Your task to perform on an android device: Search for "acer nitro" on costco.com, select the first entry, and add it to the cart. Image 0: 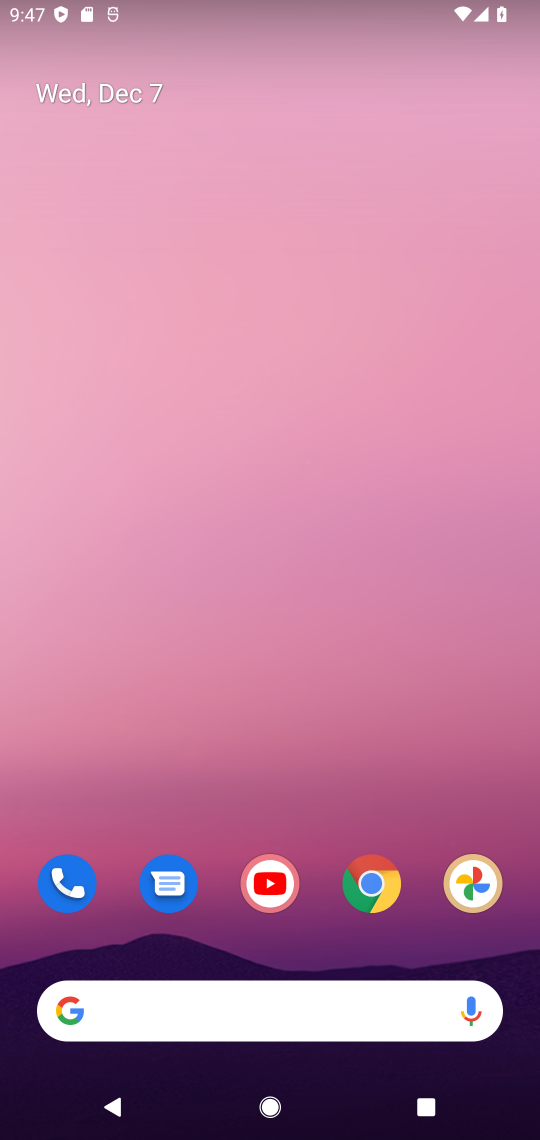
Step 0: drag from (299, 1035) to (233, 494)
Your task to perform on an android device: Search for "acer nitro" on costco.com, select the first entry, and add it to the cart. Image 1: 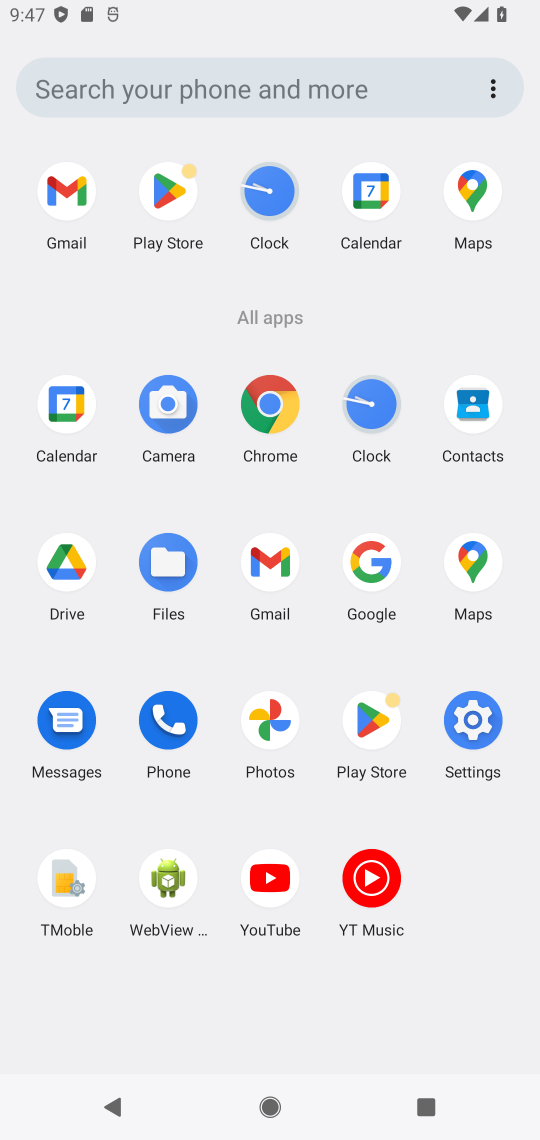
Step 1: click (363, 565)
Your task to perform on an android device: Search for "acer nitro" on costco.com, select the first entry, and add it to the cart. Image 2: 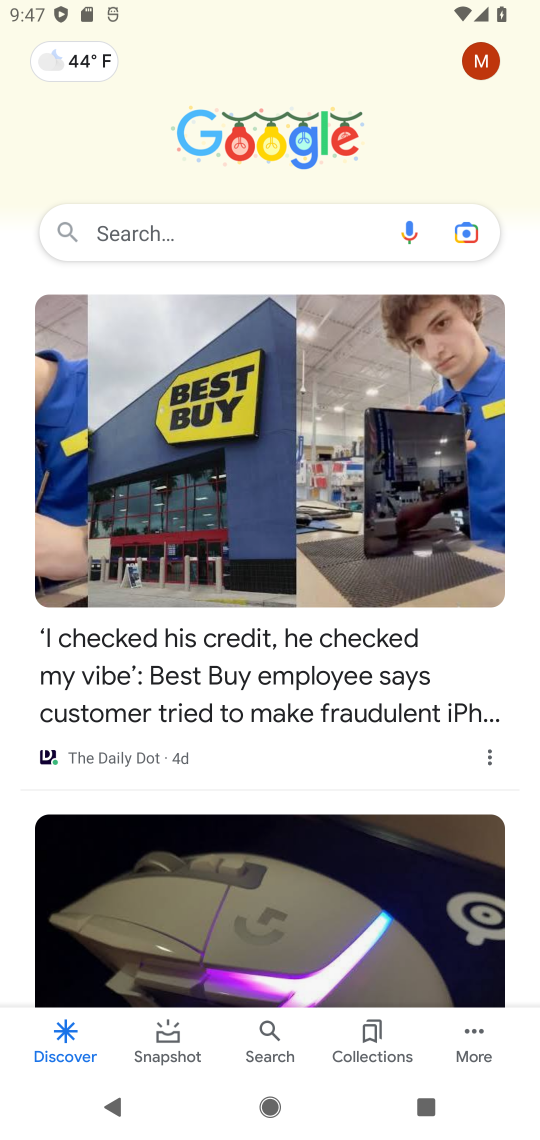
Step 2: click (161, 242)
Your task to perform on an android device: Search for "acer nitro" on costco.com, select the first entry, and add it to the cart. Image 3: 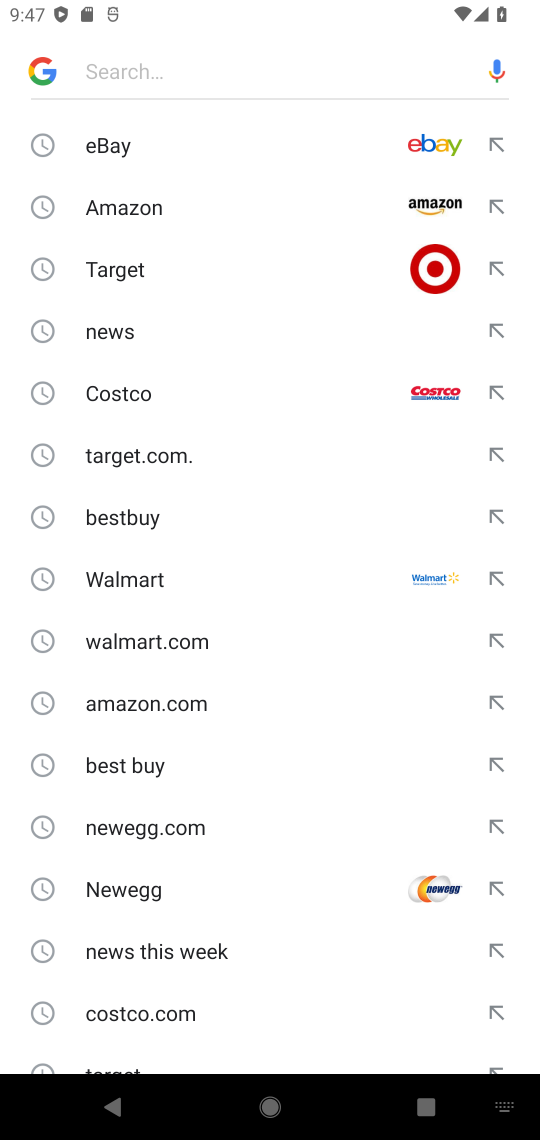
Step 3: click (137, 399)
Your task to perform on an android device: Search for "acer nitro" on costco.com, select the first entry, and add it to the cart. Image 4: 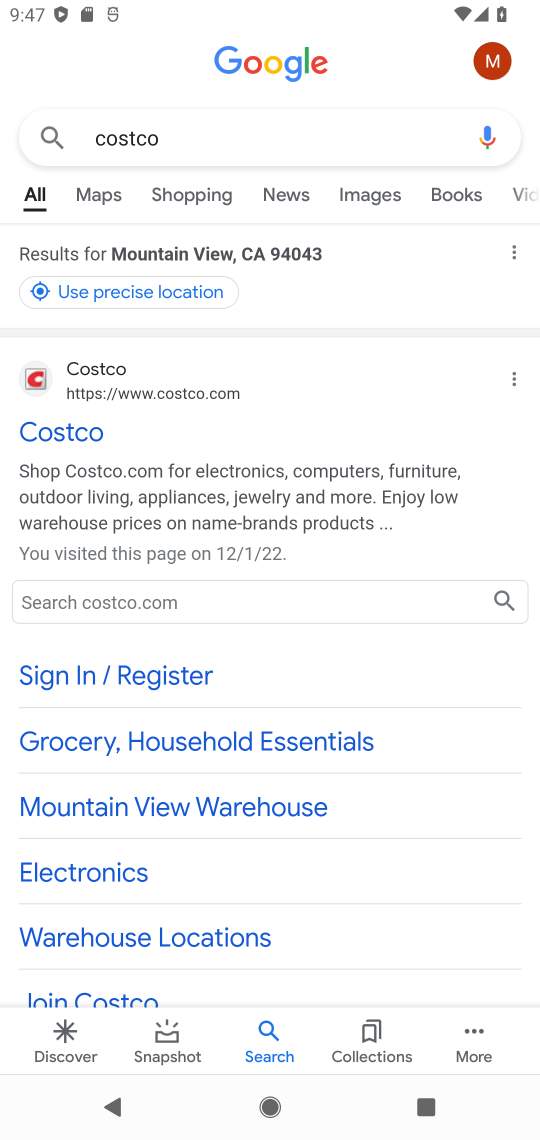
Step 4: click (58, 439)
Your task to perform on an android device: Search for "acer nitro" on costco.com, select the first entry, and add it to the cart. Image 5: 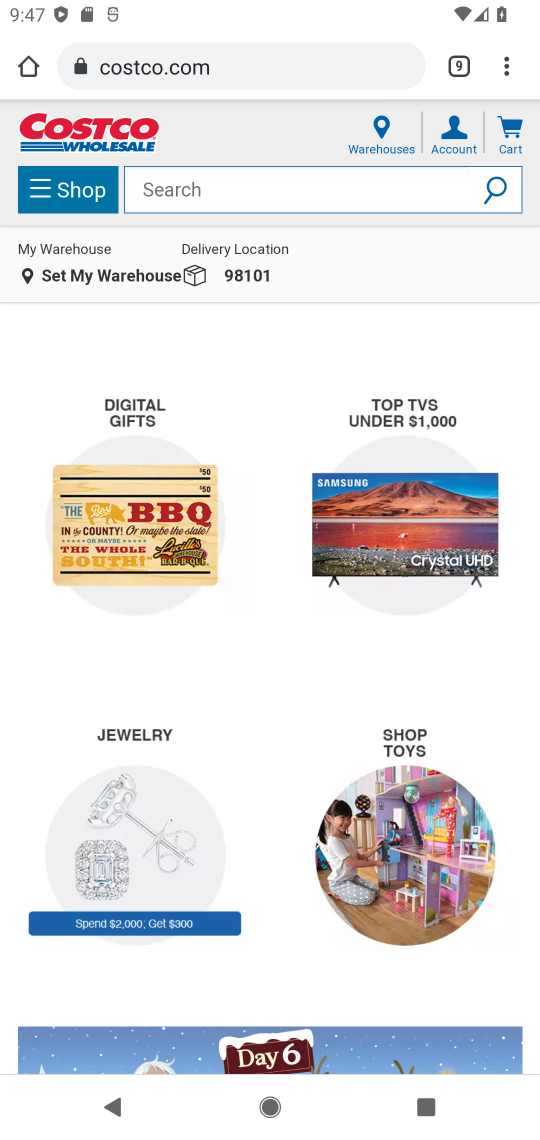
Step 5: click (171, 189)
Your task to perform on an android device: Search for "acer nitro" on costco.com, select the first entry, and add it to the cart. Image 6: 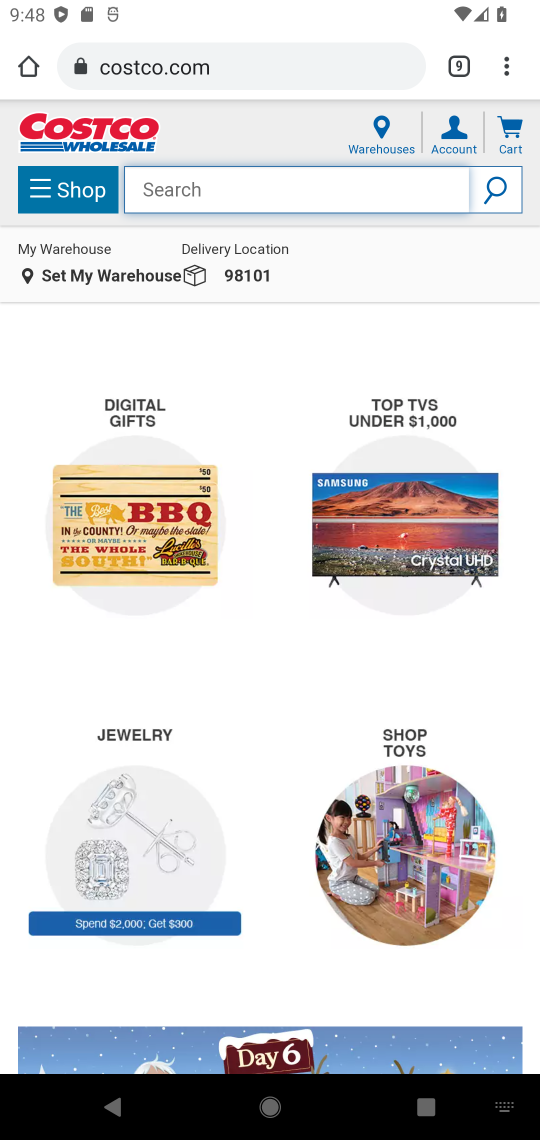
Step 6: type "acer nitro"
Your task to perform on an android device: Search for "acer nitro" on costco.com, select the first entry, and add it to the cart. Image 7: 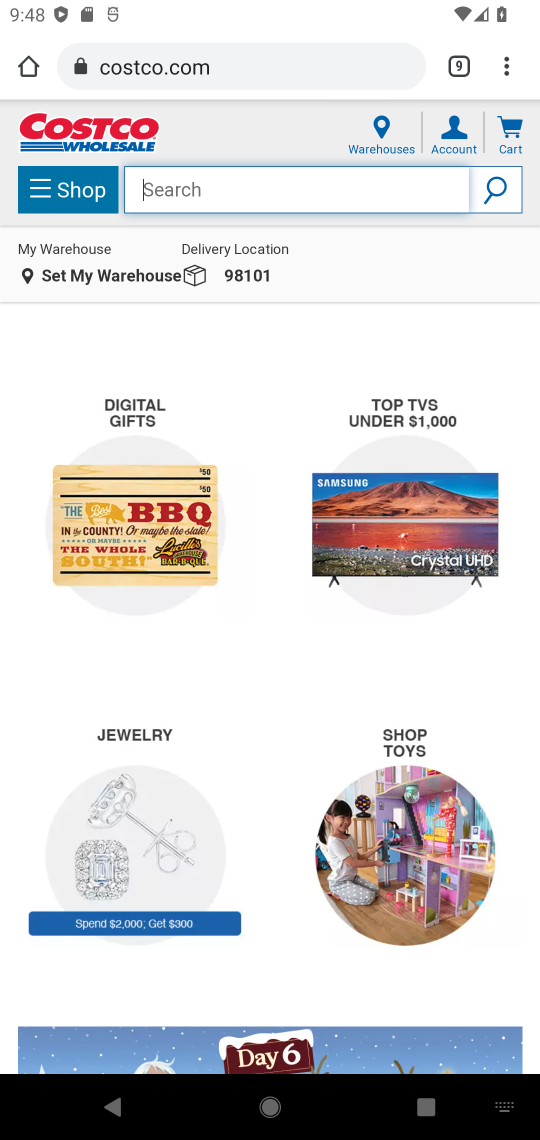
Step 7: click (494, 184)
Your task to perform on an android device: Search for "acer nitro" on costco.com, select the first entry, and add it to the cart. Image 8: 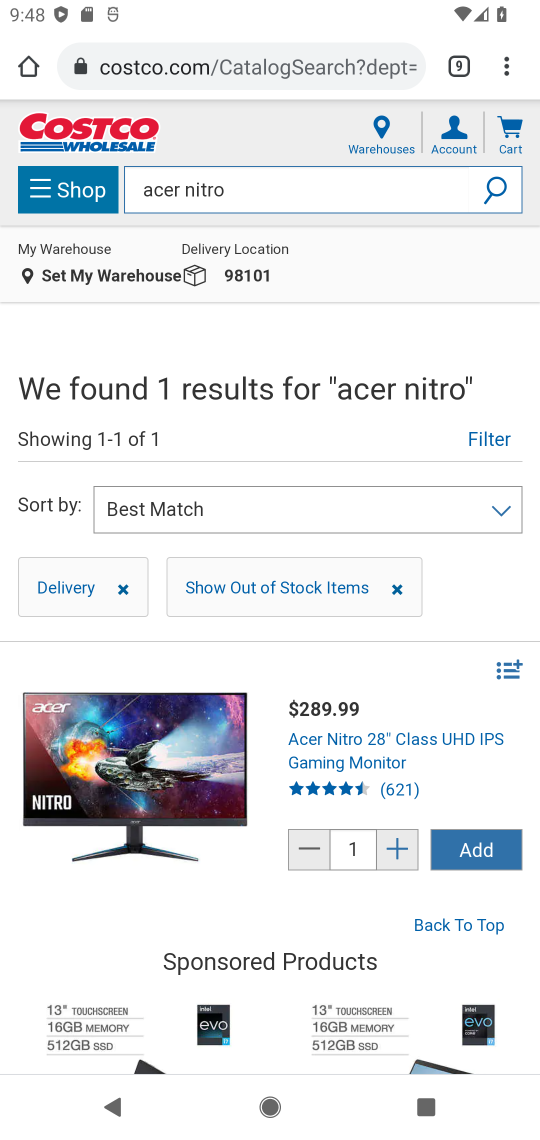
Step 8: click (490, 828)
Your task to perform on an android device: Search for "acer nitro" on costco.com, select the first entry, and add it to the cart. Image 9: 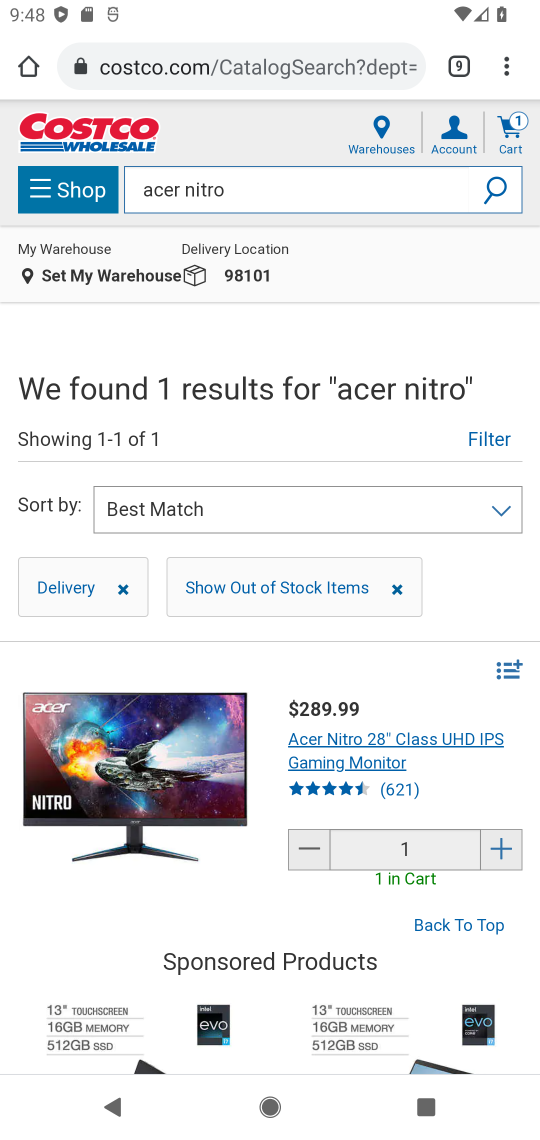
Step 9: click (515, 115)
Your task to perform on an android device: Search for "acer nitro" on costco.com, select the first entry, and add it to the cart. Image 10: 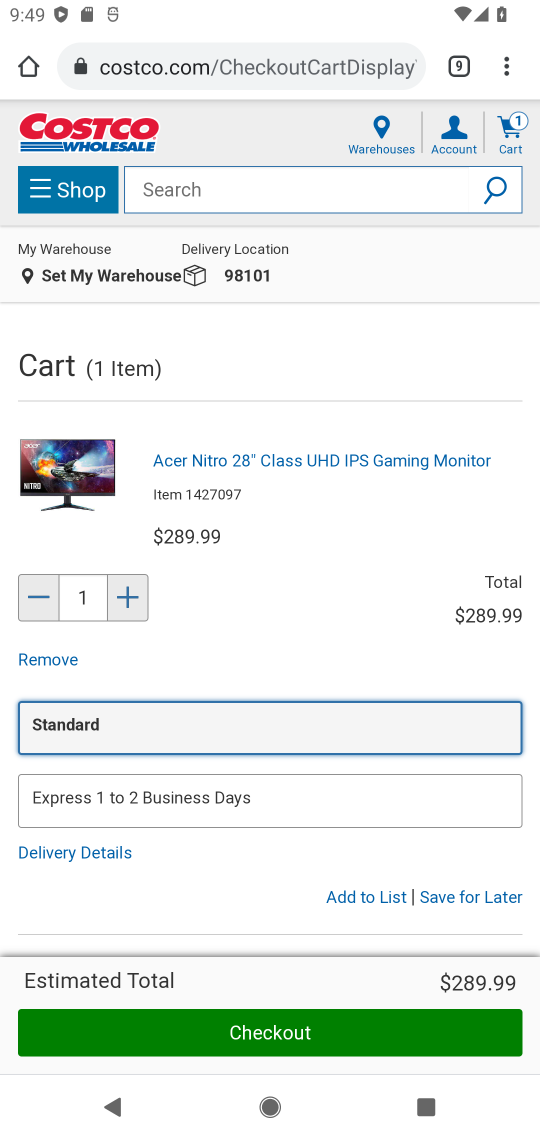
Step 10: task complete